Your task to perform on an android device: Look up the best rated pressure washer on Home Depot. Image 0: 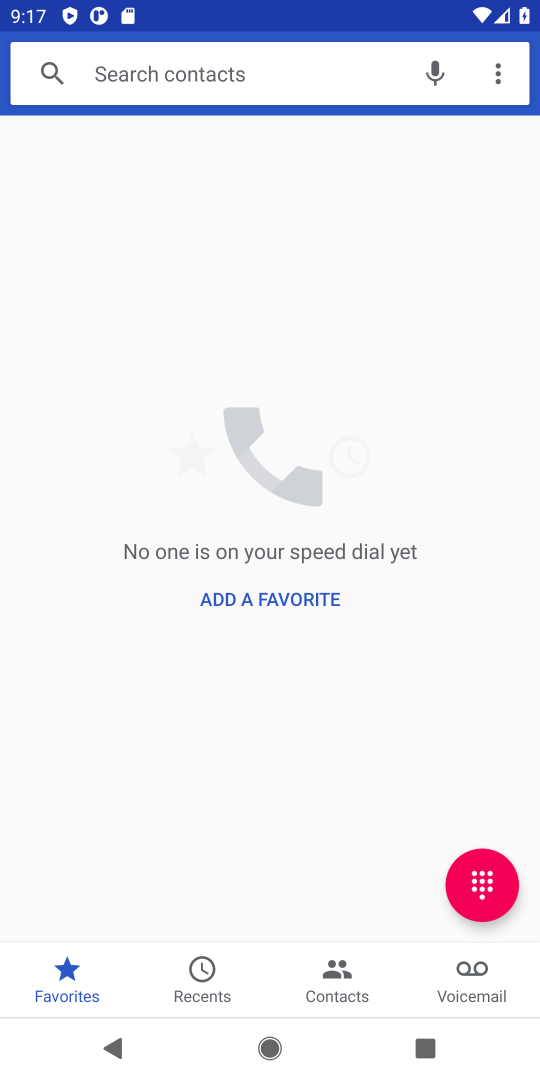
Step 0: press home button
Your task to perform on an android device: Look up the best rated pressure washer on Home Depot. Image 1: 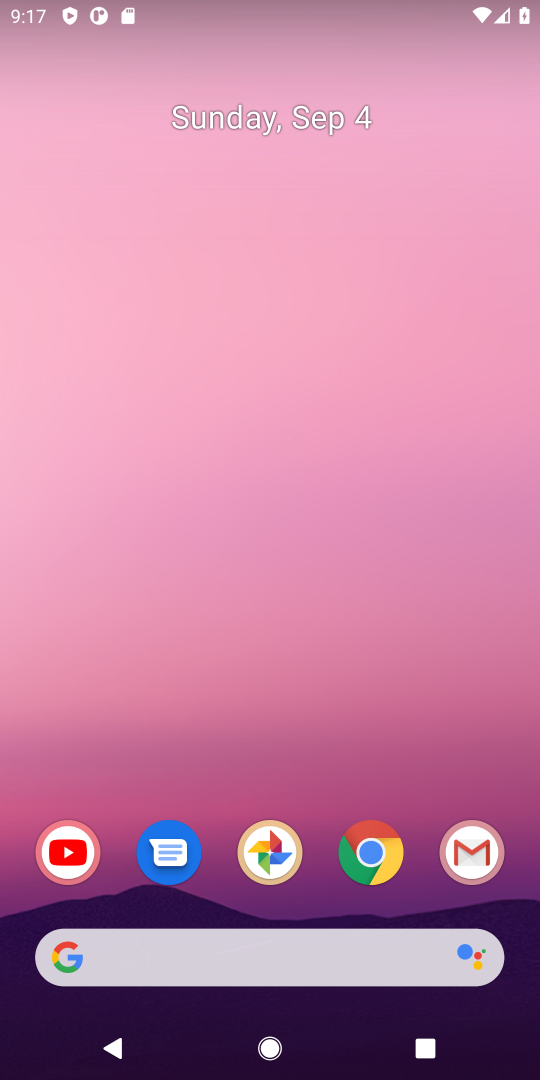
Step 1: drag from (398, 786) to (225, 41)
Your task to perform on an android device: Look up the best rated pressure washer on Home Depot. Image 2: 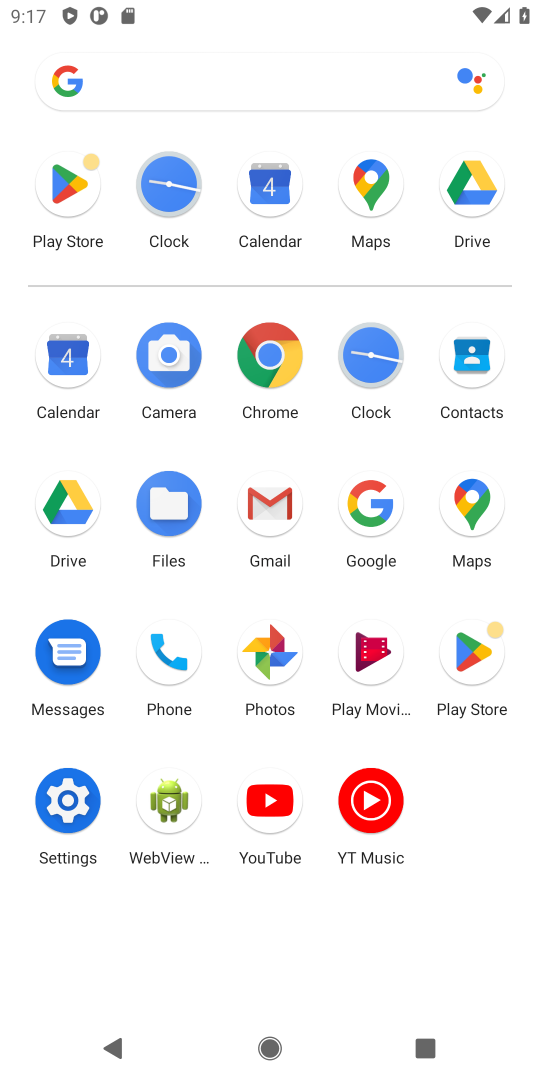
Step 2: click (387, 514)
Your task to perform on an android device: Look up the best rated pressure washer on Home Depot. Image 3: 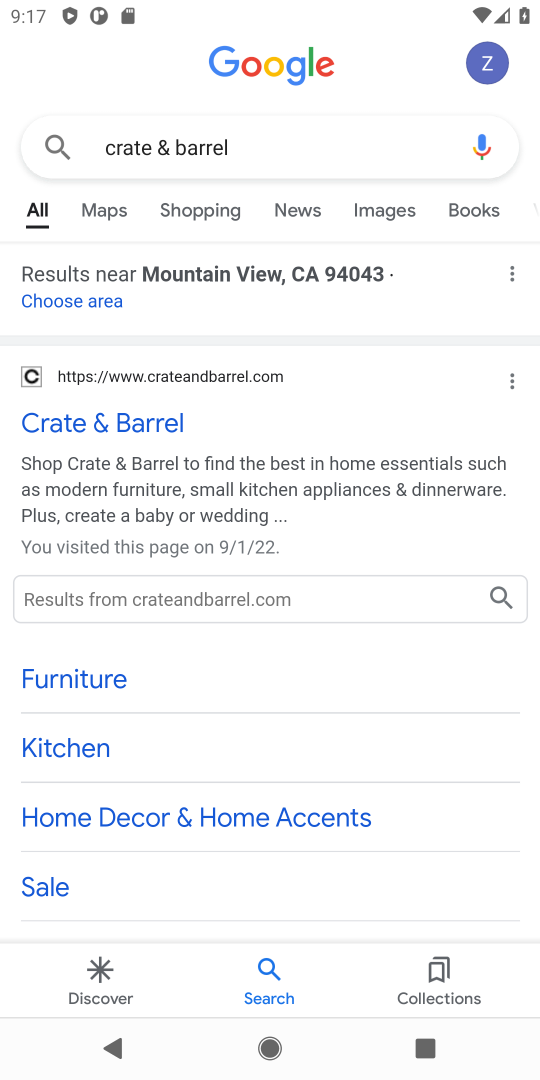
Step 3: press back button
Your task to perform on an android device: Look up the best rated pressure washer on Home Depot. Image 4: 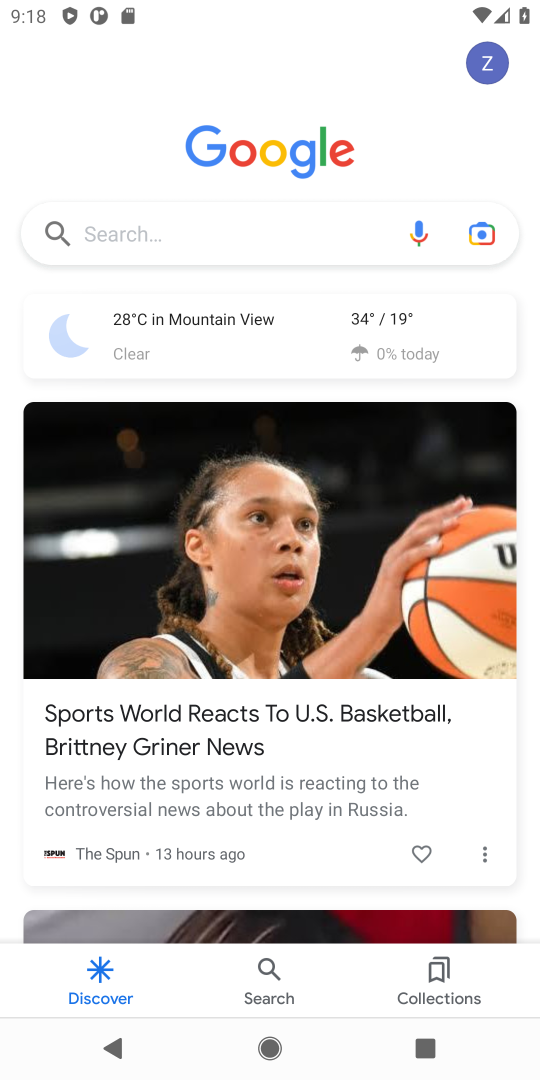
Step 4: click (168, 231)
Your task to perform on an android device: Look up the best rated pressure washer on Home Depot. Image 5: 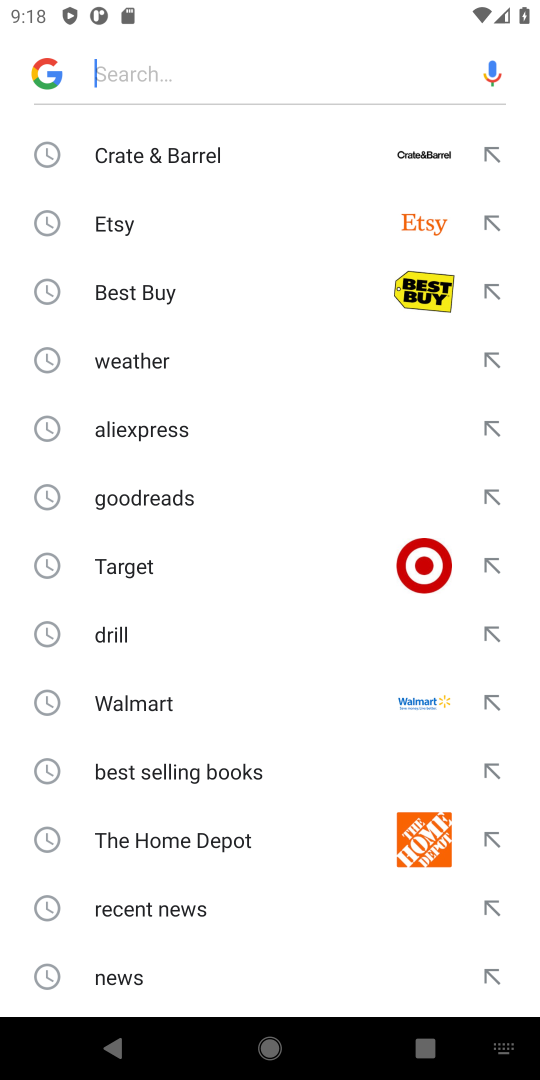
Step 5: click (162, 843)
Your task to perform on an android device: Look up the best rated pressure washer on Home Depot. Image 6: 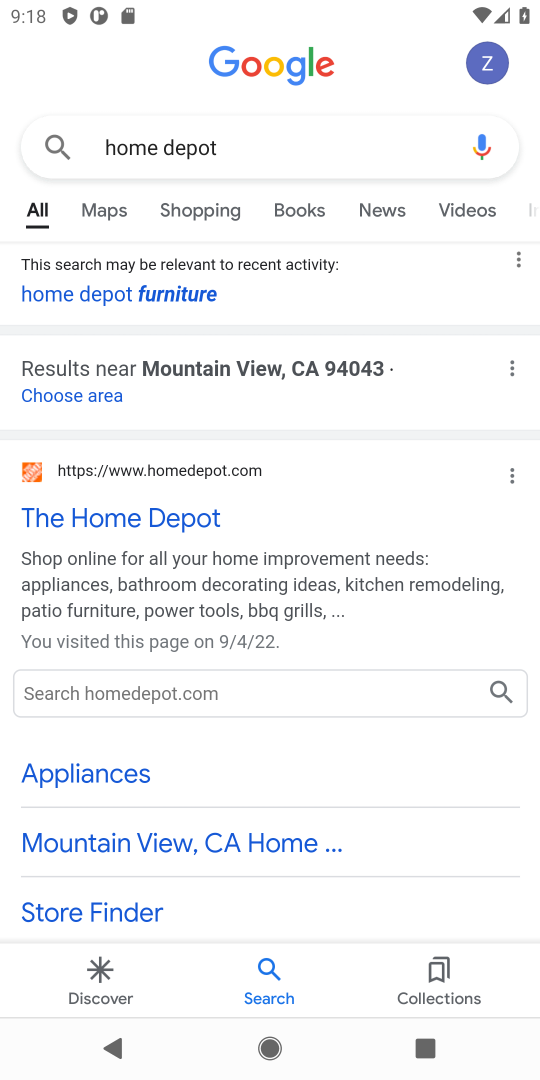
Step 6: click (197, 517)
Your task to perform on an android device: Look up the best rated pressure washer on Home Depot. Image 7: 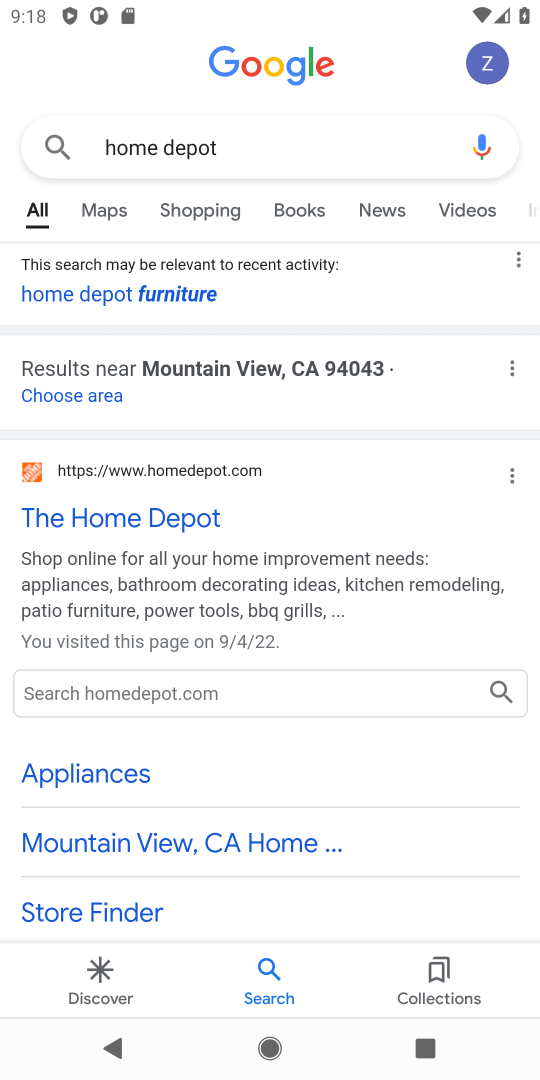
Step 7: click (197, 517)
Your task to perform on an android device: Look up the best rated pressure washer on Home Depot. Image 8: 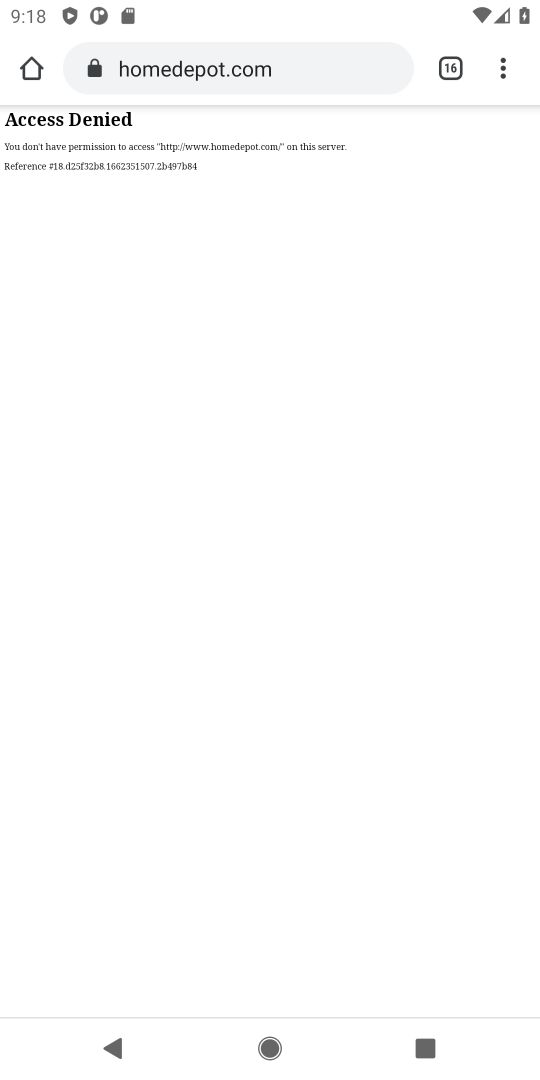
Step 8: task complete